Your task to perform on an android device: Open network settings Image 0: 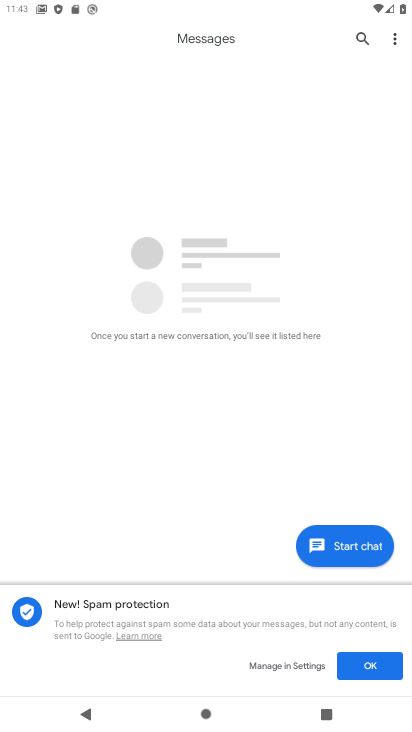
Step 0: press home button
Your task to perform on an android device: Open network settings Image 1: 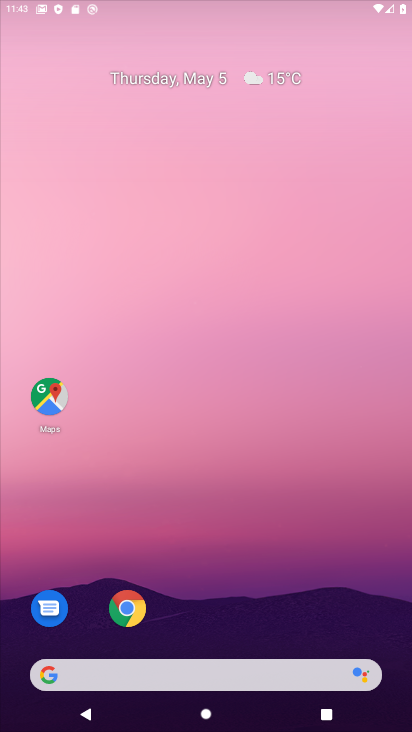
Step 1: drag from (202, 517) to (228, 110)
Your task to perform on an android device: Open network settings Image 2: 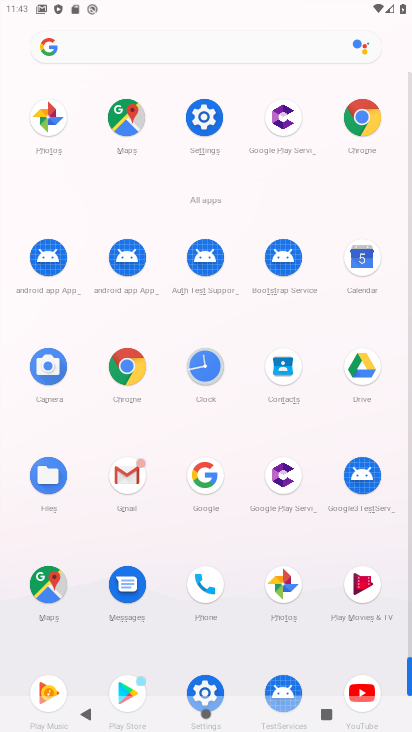
Step 2: click (207, 131)
Your task to perform on an android device: Open network settings Image 3: 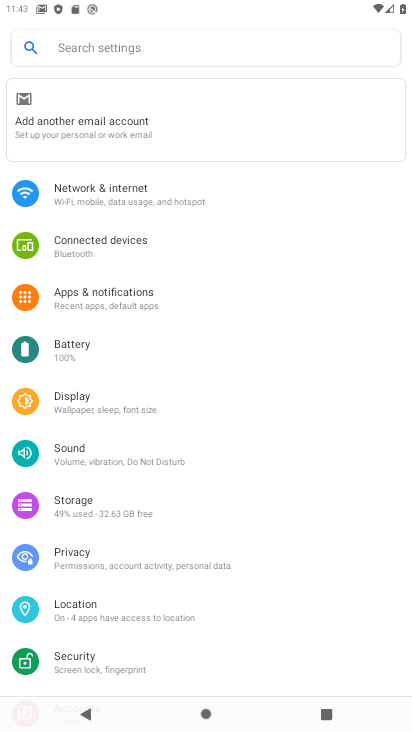
Step 3: click (159, 190)
Your task to perform on an android device: Open network settings Image 4: 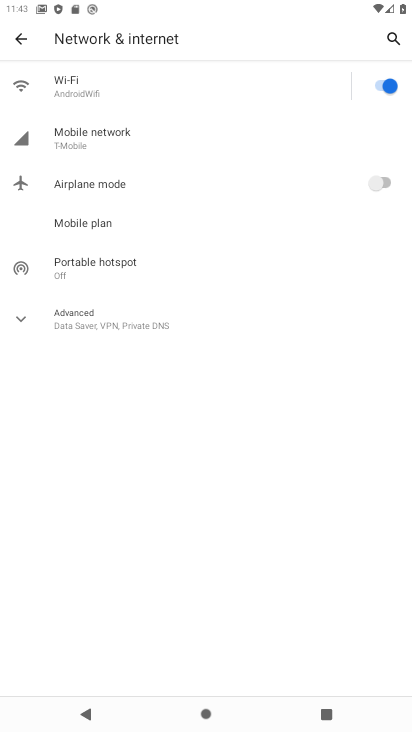
Step 4: task complete